Your task to perform on an android device: toggle show notifications on the lock screen Image 0: 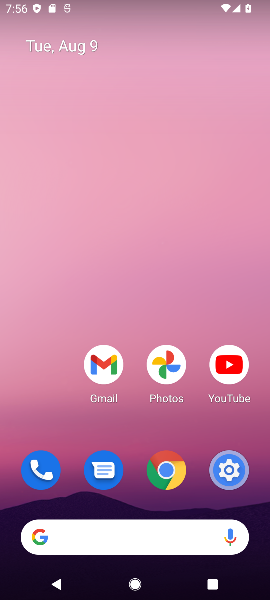
Step 0: drag from (108, 541) to (114, 138)
Your task to perform on an android device: toggle show notifications on the lock screen Image 1: 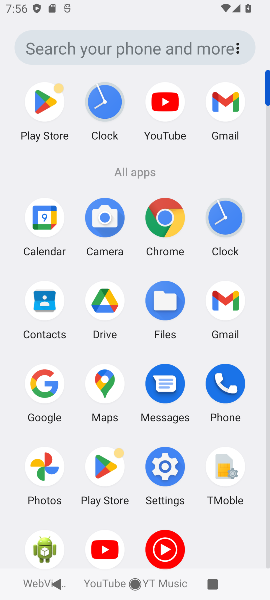
Step 1: click (163, 462)
Your task to perform on an android device: toggle show notifications on the lock screen Image 2: 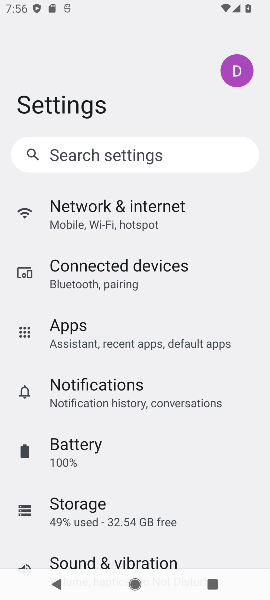
Step 2: click (121, 377)
Your task to perform on an android device: toggle show notifications on the lock screen Image 3: 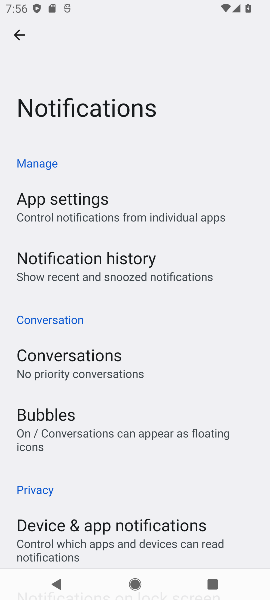
Step 3: drag from (115, 487) to (194, 305)
Your task to perform on an android device: toggle show notifications on the lock screen Image 4: 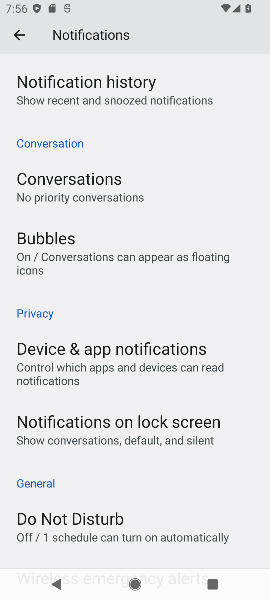
Step 4: click (156, 422)
Your task to perform on an android device: toggle show notifications on the lock screen Image 5: 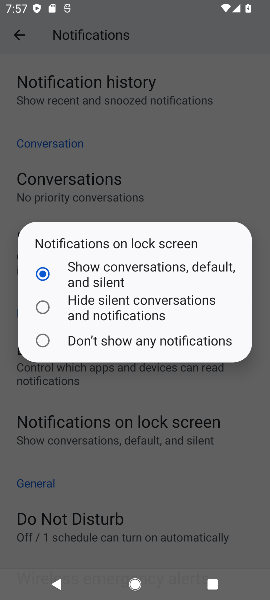
Step 5: click (41, 335)
Your task to perform on an android device: toggle show notifications on the lock screen Image 6: 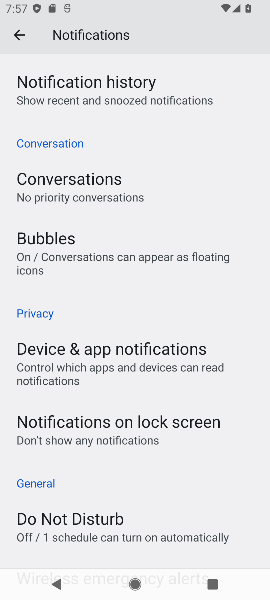
Step 6: task complete